Your task to perform on an android device: stop showing notifications on the lock screen Image 0: 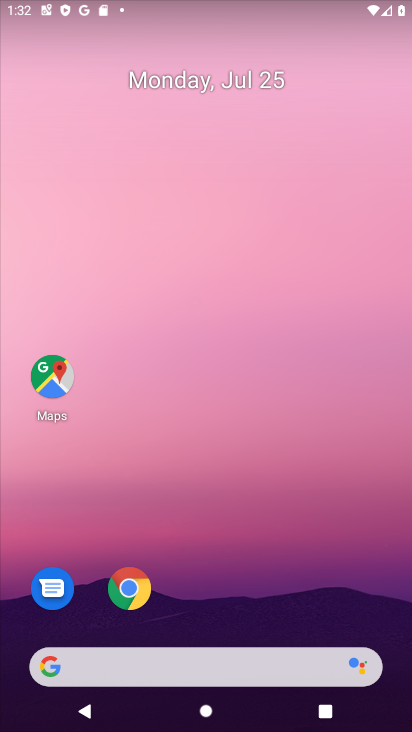
Step 0: drag from (188, 581) to (190, 170)
Your task to perform on an android device: stop showing notifications on the lock screen Image 1: 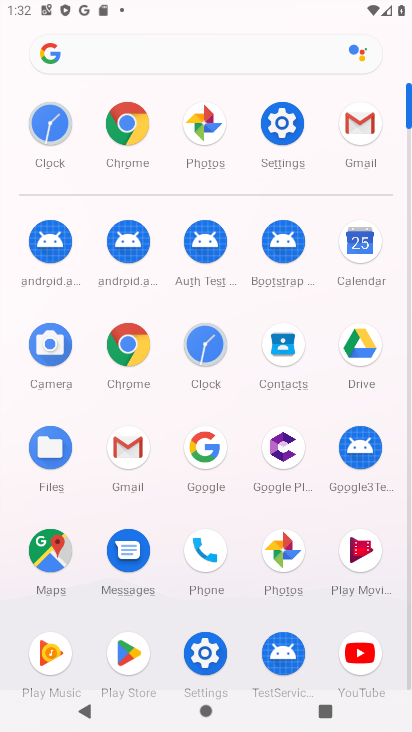
Step 1: click (280, 129)
Your task to perform on an android device: stop showing notifications on the lock screen Image 2: 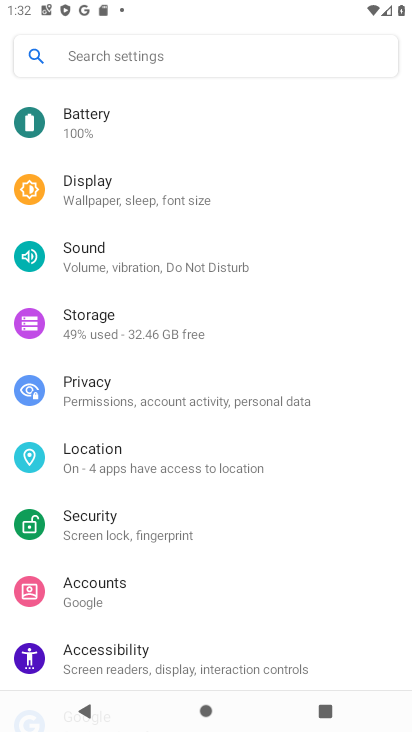
Step 2: drag from (206, 190) to (167, 583)
Your task to perform on an android device: stop showing notifications on the lock screen Image 3: 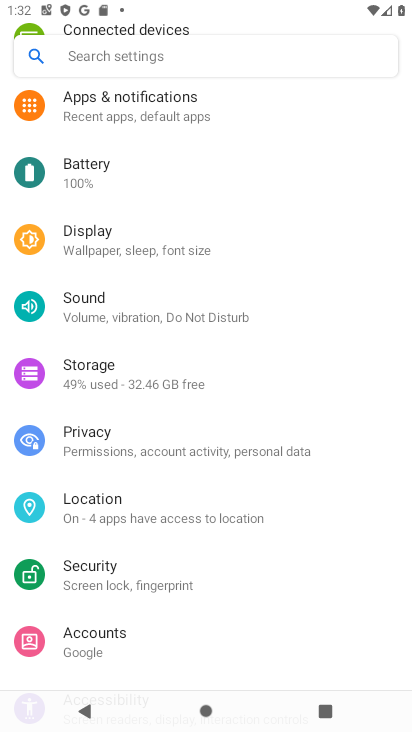
Step 3: click (144, 124)
Your task to perform on an android device: stop showing notifications on the lock screen Image 4: 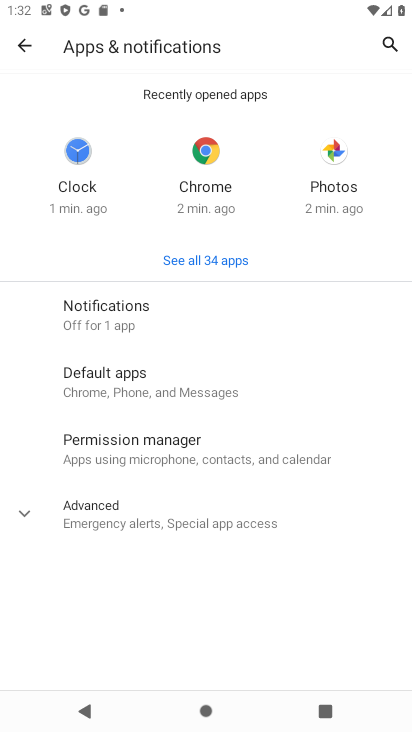
Step 4: click (144, 124)
Your task to perform on an android device: stop showing notifications on the lock screen Image 5: 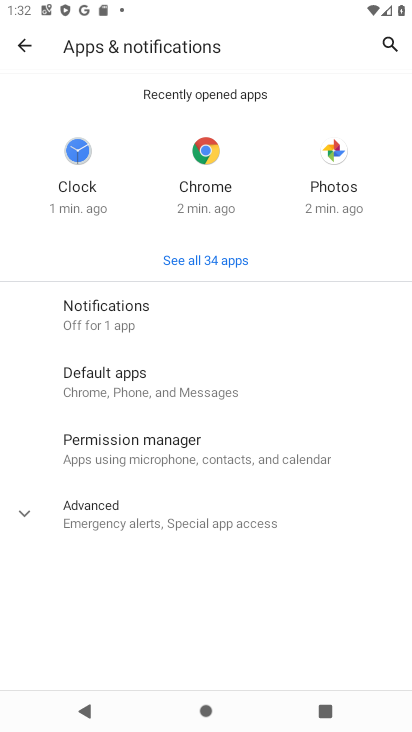
Step 5: click (72, 328)
Your task to perform on an android device: stop showing notifications on the lock screen Image 6: 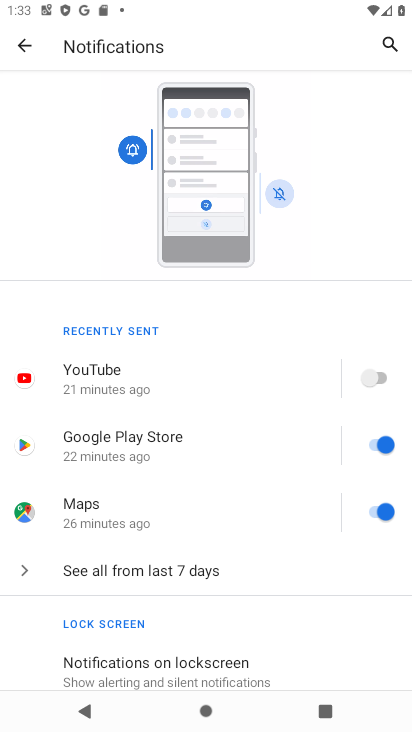
Step 6: click (113, 651)
Your task to perform on an android device: stop showing notifications on the lock screen Image 7: 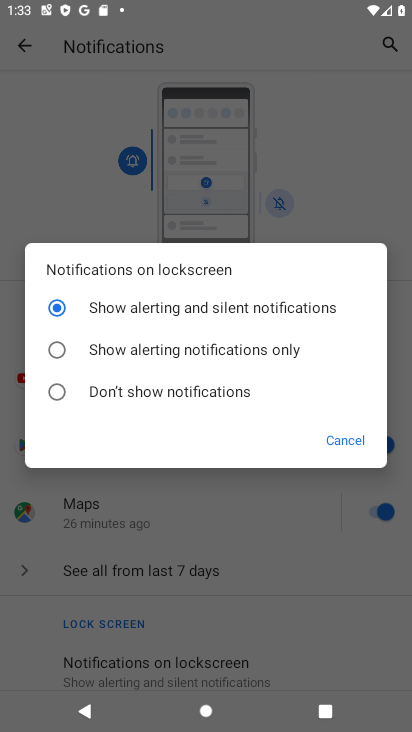
Step 7: click (57, 395)
Your task to perform on an android device: stop showing notifications on the lock screen Image 8: 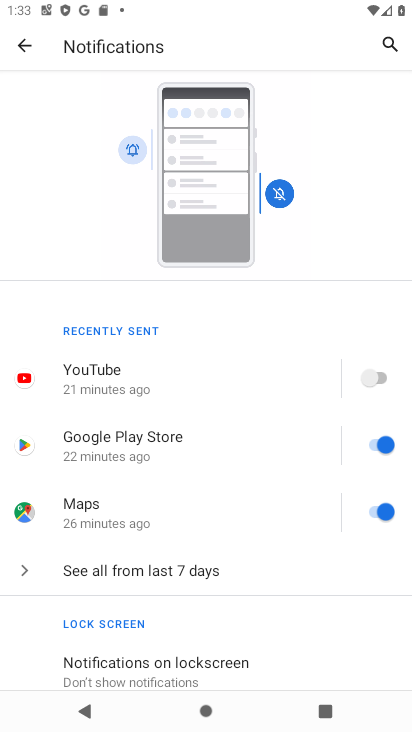
Step 8: task complete